Your task to perform on an android device: Search for seafood restaurants on Google Maps Image 0: 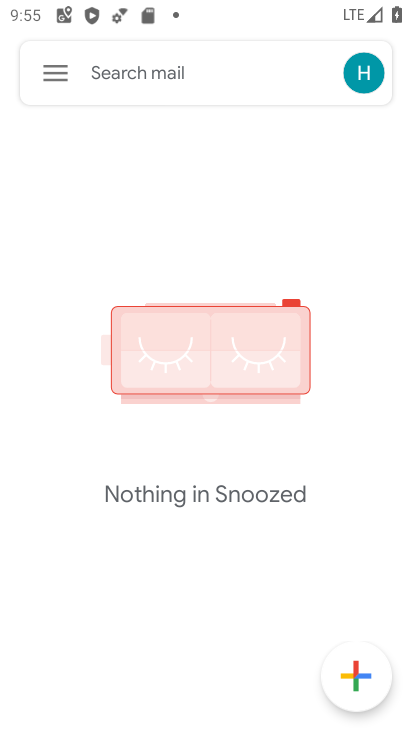
Step 0: press home button
Your task to perform on an android device: Search for seafood restaurants on Google Maps Image 1: 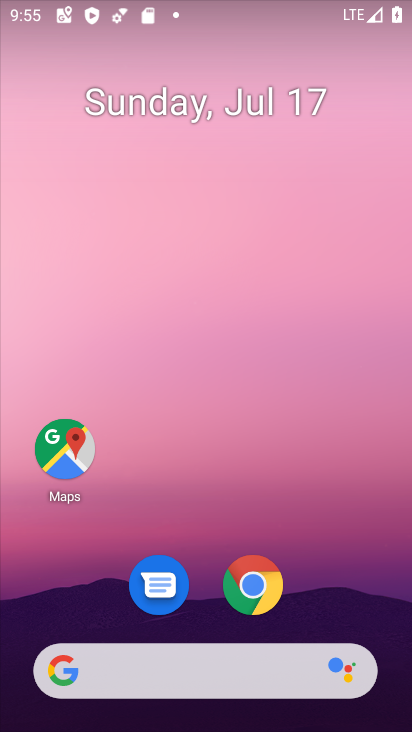
Step 1: click (68, 439)
Your task to perform on an android device: Search for seafood restaurants on Google Maps Image 2: 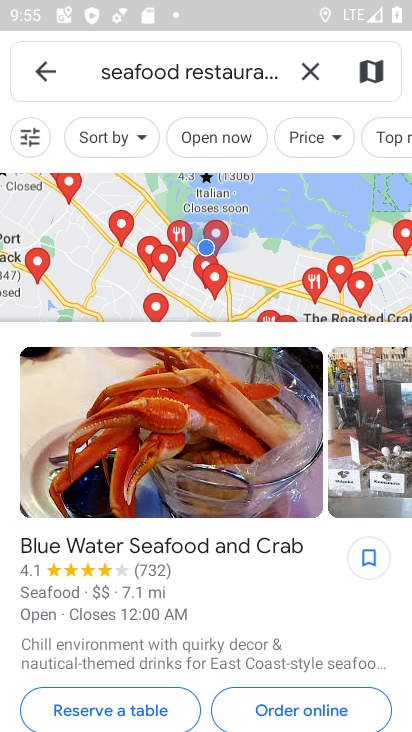
Step 2: task complete